Your task to perform on an android device: Search for Mexican restaurants on Maps Image 0: 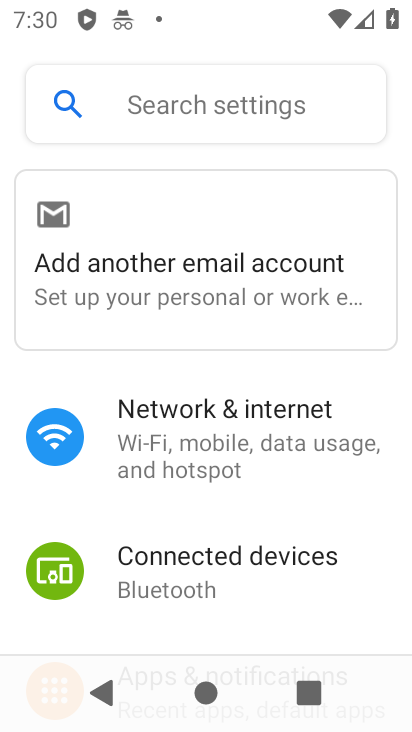
Step 0: press home button
Your task to perform on an android device: Search for Mexican restaurants on Maps Image 1: 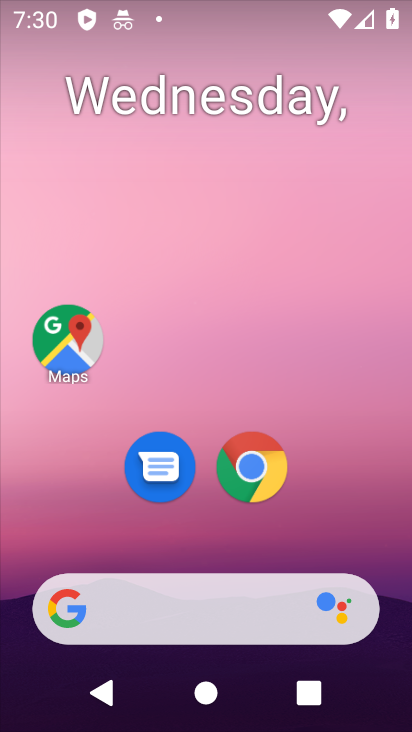
Step 1: drag from (370, 544) to (346, 160)
Your task to perform on an android device: Search for Mexican restaurants on Maps Image 2: 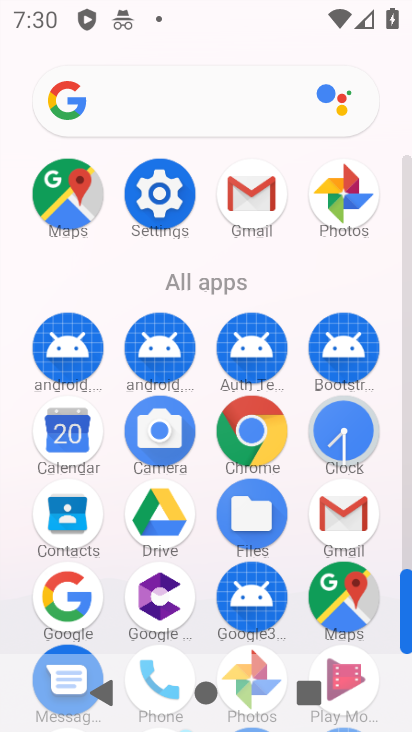
Step 2: click (71, 184)
Your task to perform on an android device: Search for Mexican restaurants on Maps Image 3: 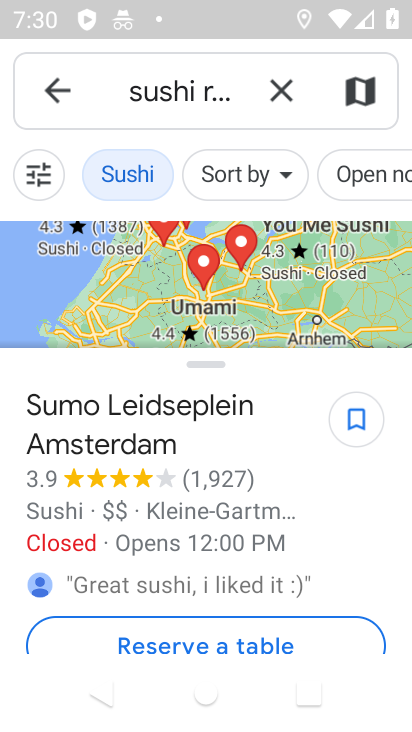
Step 3: click (276, 81)
Your task to perform on an android device: Search for Mexican restaurants on Maps Image 4: 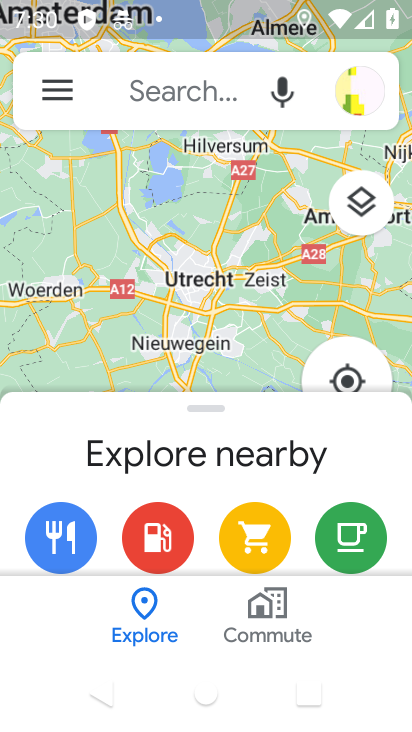
Step 4: click (161, 88)
Your task to perform on an android device: Search for Mexican restaurants on Maps Image 5: 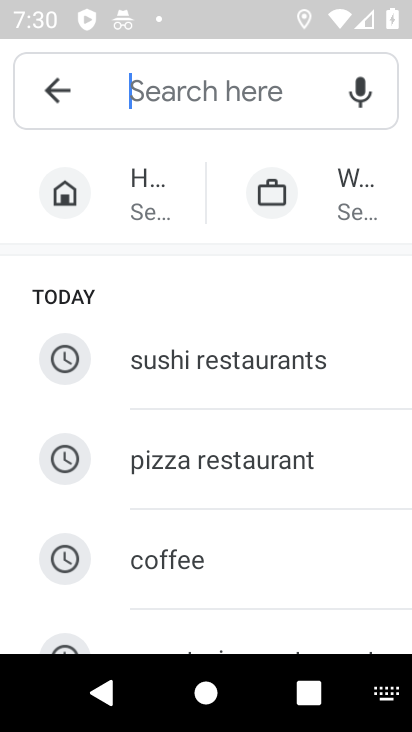
Step 5: type "Mexican restaurants"
Your task to perform on an android device: Search for Mexican restaurants on Maps Image 6: 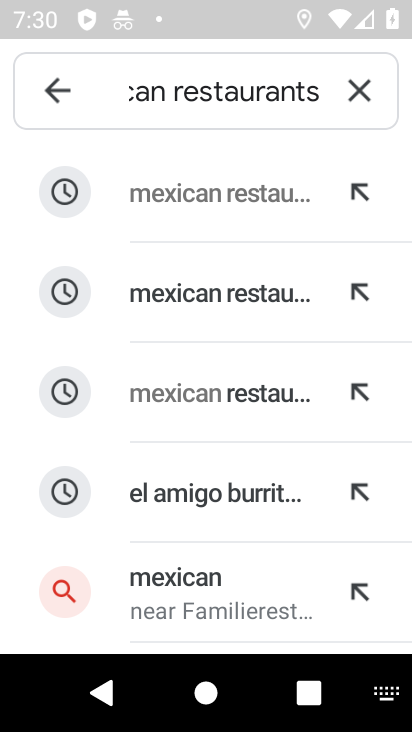
Step 6: click (214, 292)
Your task to perform on an android device: Search for Mexican restaurants on Maps Image 7: 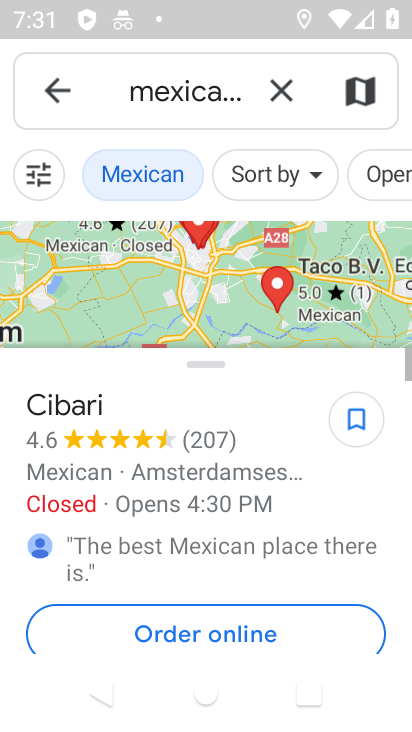
Step 7: task complete